Your task to perform on an android device: turn on improve location accuracy Image 0: 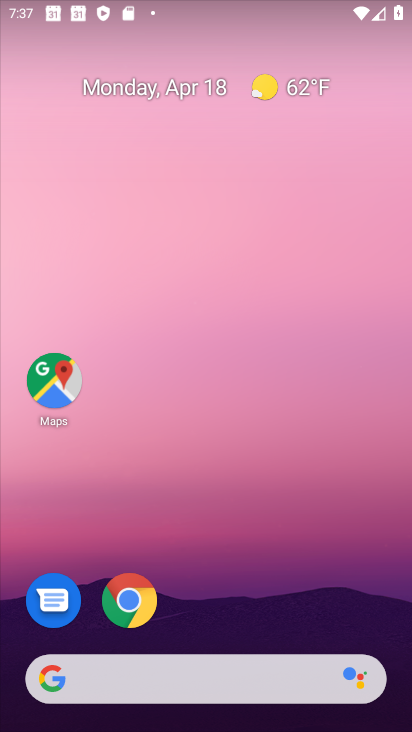
Step 0: drag from (222, 624) to (199, 91)
Your task to perform on an android device: turn on improve location accuracy Image 1: 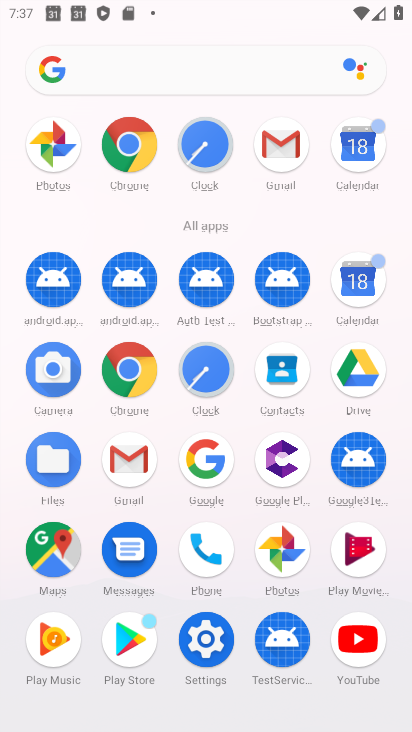
Step 1: click (208, 662)
Your task to perform on an android device: turn on improve location accuracy Image 2: 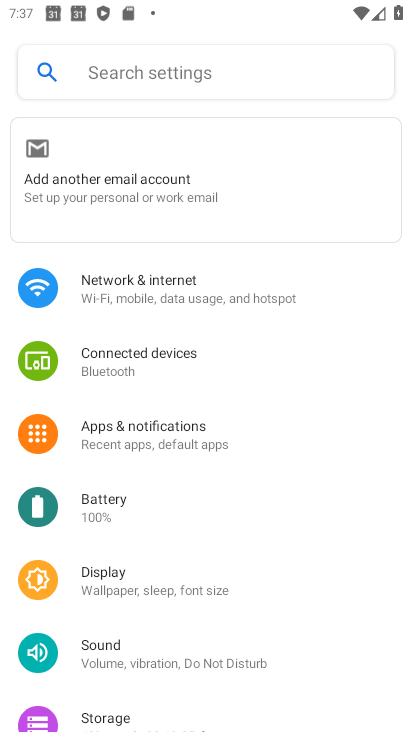
Step 2: drag from (198, 657) to (145, 231)
Your task to perform on an android device: turn on improve location accuracy Image 3: 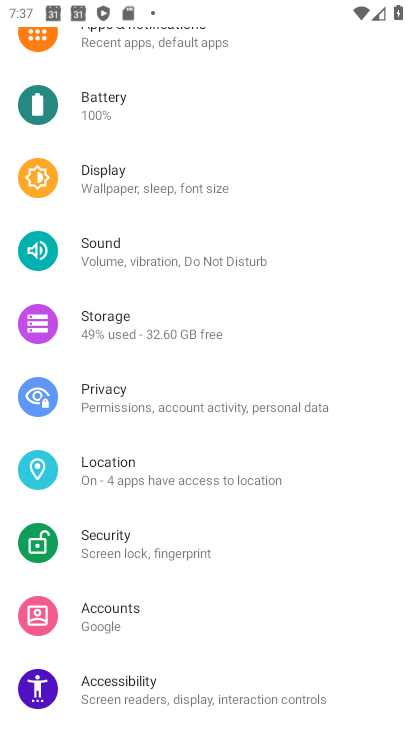
Step 3: click (126, 480)
Your task to perform on an android device: turn on improve location accuracy Image 4: 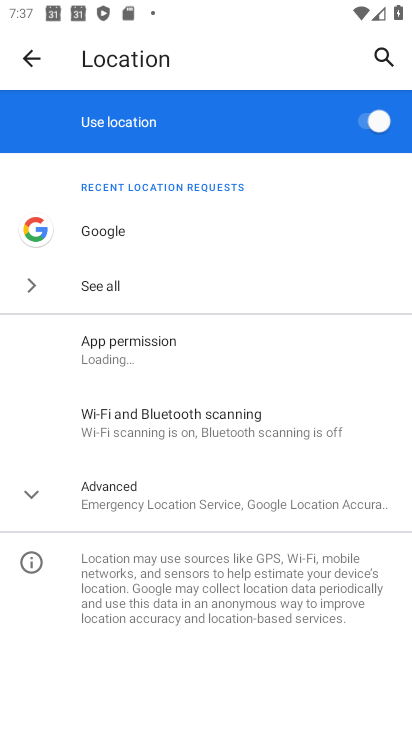
Step 4: click (129, 478)
Your task to perform on an android device: turn on improve location accuracy Image 5: 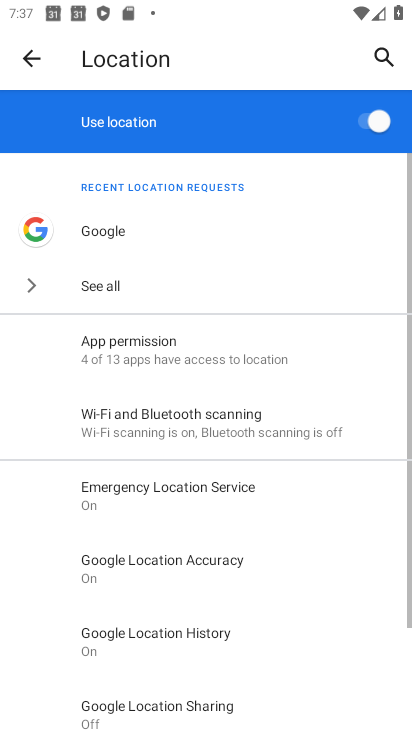
Step 5: click (208, 564)
Your task to perform on an android device: turn on improve location accuracy Image 6: 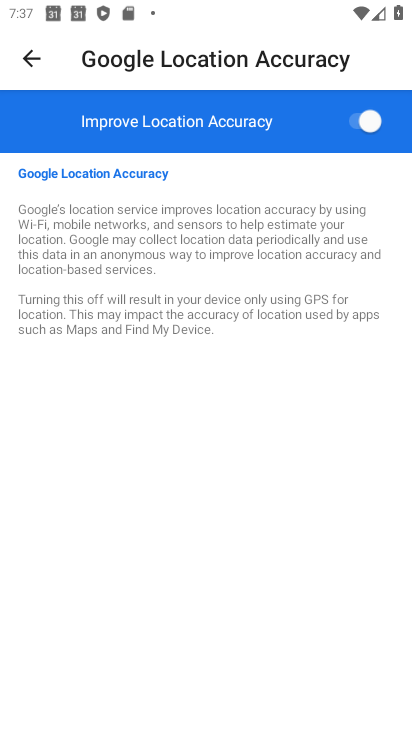
Step 6: task complete